Your task to perform on an android device: Is it going to rain this weekend? Image 0: 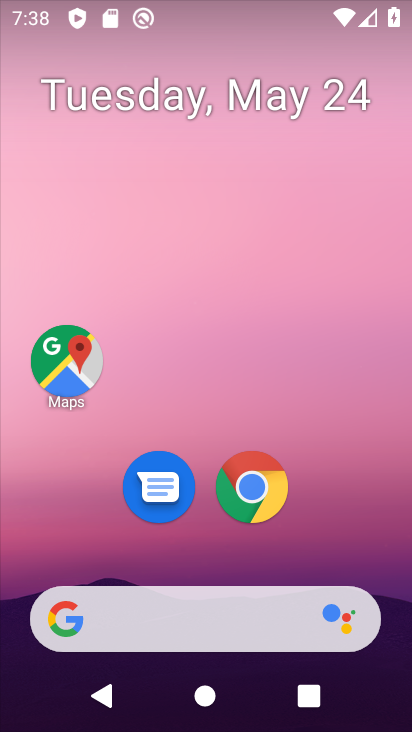
Step 0: click (239, 489)
Your task to perform on an android device: Is it going to rain this weekend? Image 1: 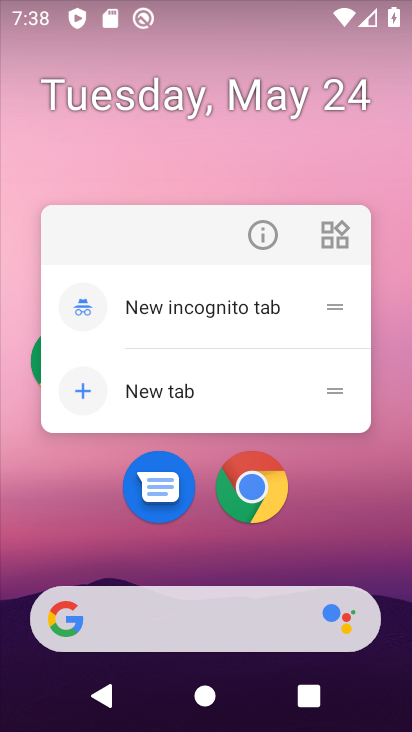
Step 1: click (338, 498)
Your task to perform on an android device: Is it going to rain this weekend? Image 2: 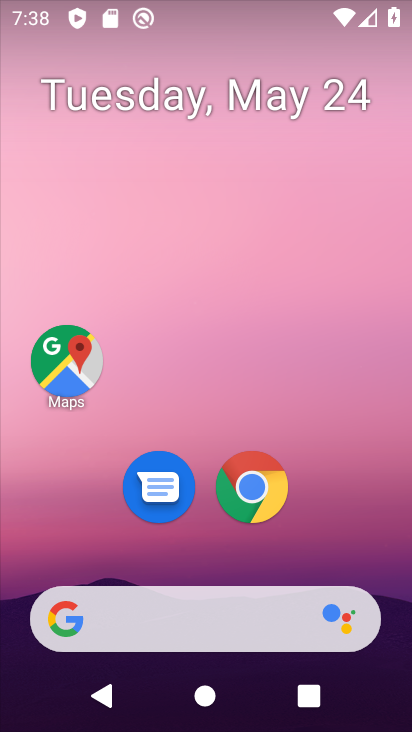
Step 2: click (263, 505)
Your task to perform on an android device: Is it going to rain this weekend? Image 3: 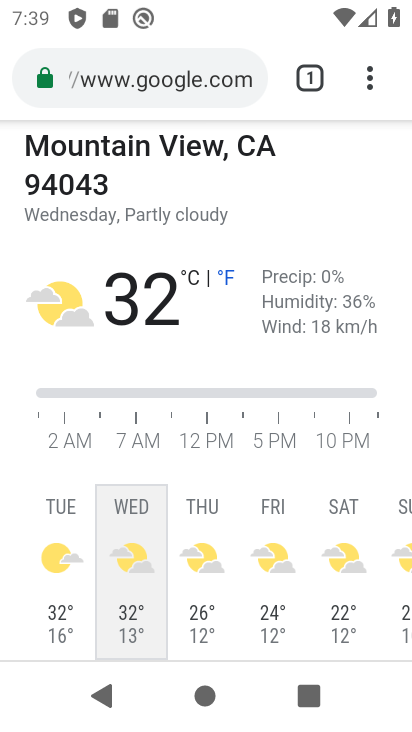
Step 3: click (178, 80)
Your task to perform on an android device: Is it going to rain this weekend? Image 4: 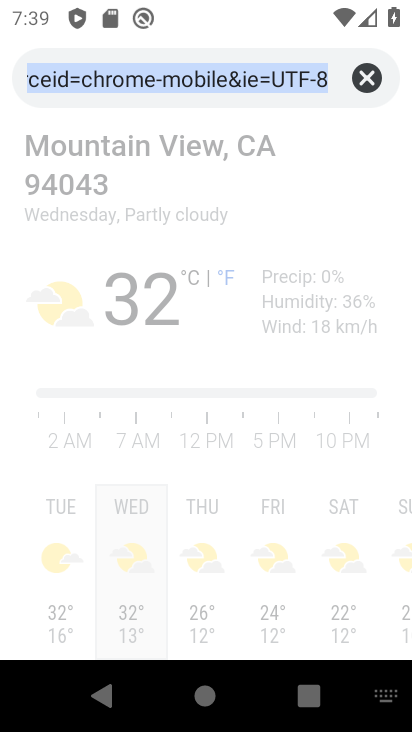
Step 4: click (355, 75)
Your task to perform on an android device: Is it going to rain this weekend? Image 5: 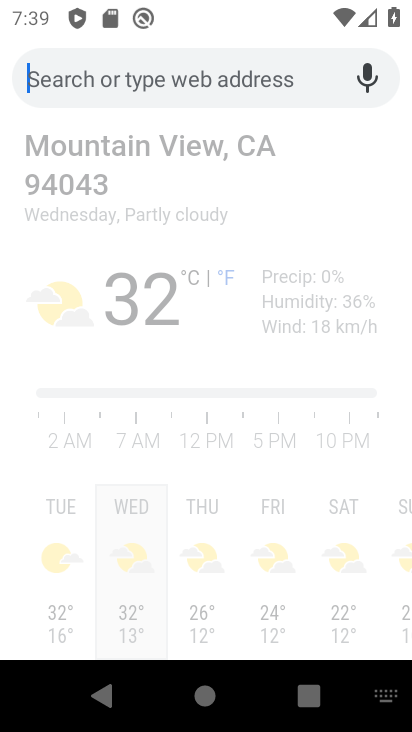
Step 5: type "Is it going to rain this weekend?"
Your task to perform on an android device: Is it going to rain this weekend? Image 6: 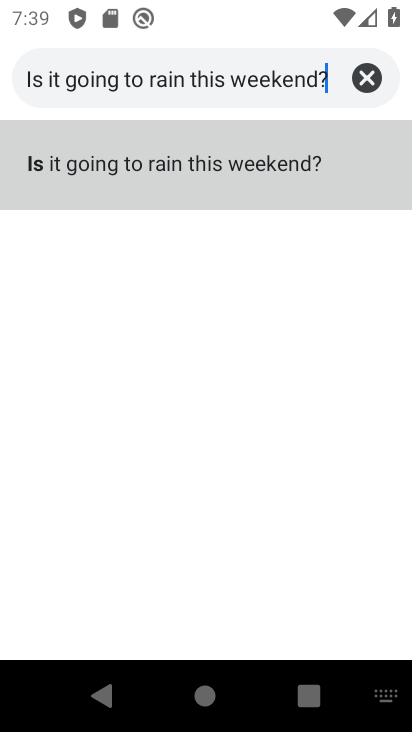
Step 6: click (140, 163)
Your task to perform on an android device: Is it going to rain this weekend? Image 7: 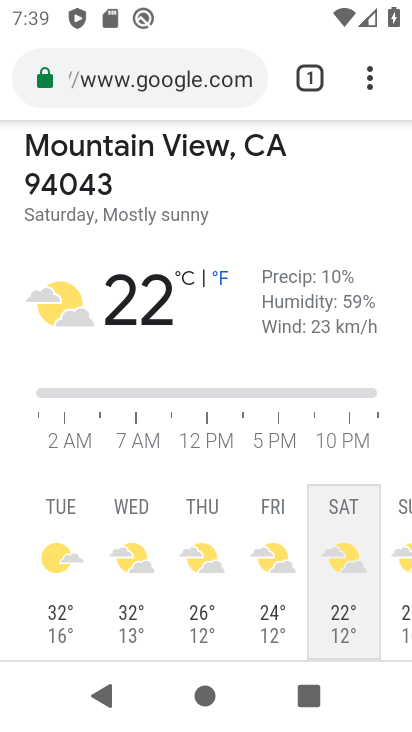
Step 7: task complete